Your task to perform on an android device: Go to ESPN.com Image 0: 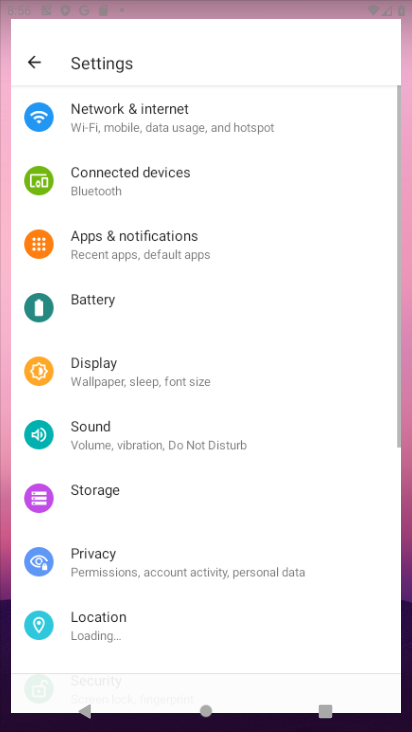
Step 0: press home button
Your task to perform on an android device: Go to ESPN.com Image 1: 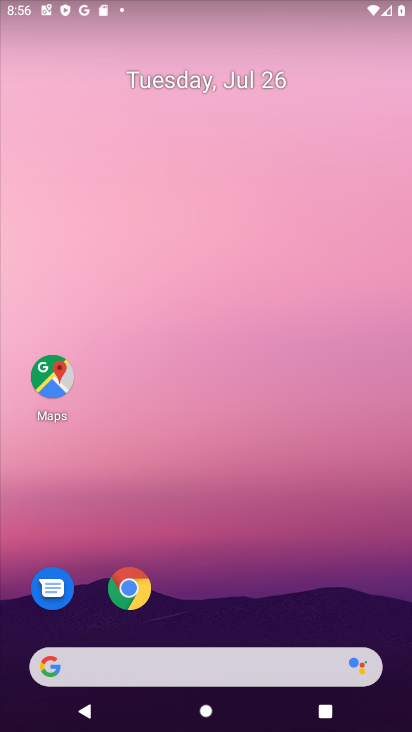
Step 1: click (129, 584)
Your task to perform on an android device: Go to ESPN.com Image 2: 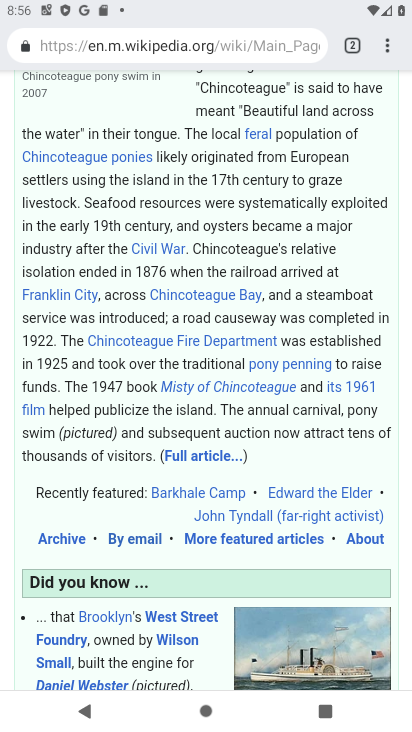
Step 2: drag from (220, 102) to (218, 495)
Your task to perform on an android device: Go to ESPN.com Image 3: 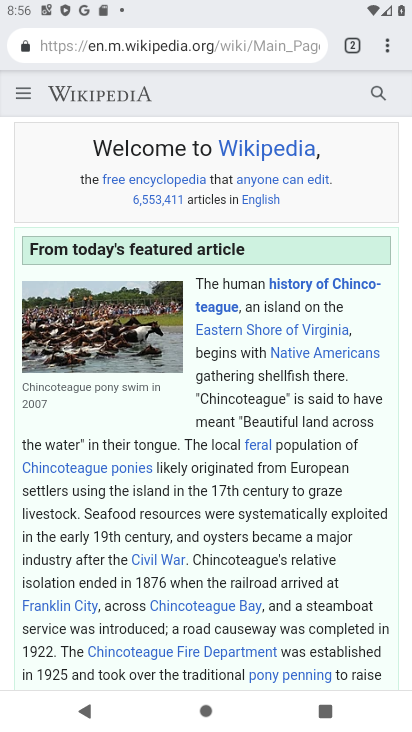
Step 3: click (356, 38)
Your task to perform on an android device: Go to ESPN.com Image 4: 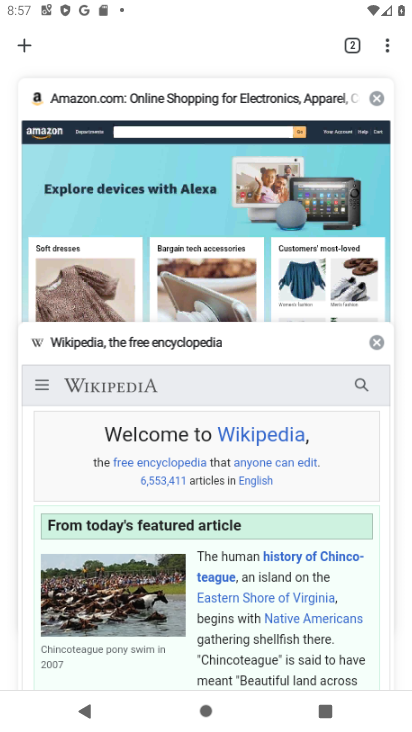
Step 4: click (18, 44)
Your task to perform on an android device: Go to ESPN.com Image 5: 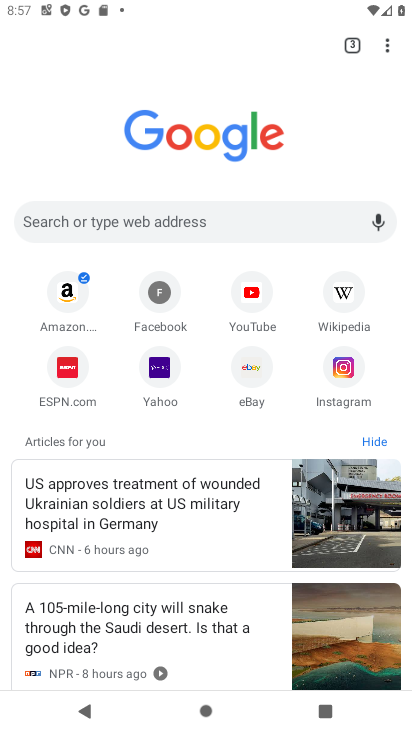
Step 5: click (66, 363)
Your task to perform on an android device: Go to ESPN.com Image 6: 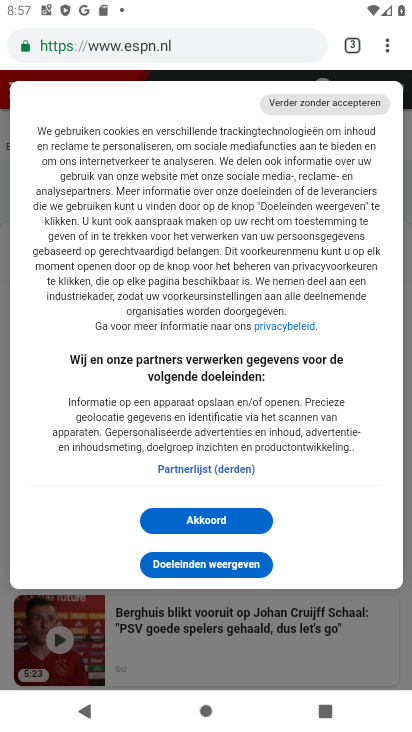
Step 6: click (205, 519)
Your task to perform on an android device: Go to ESPN.com Image 7: 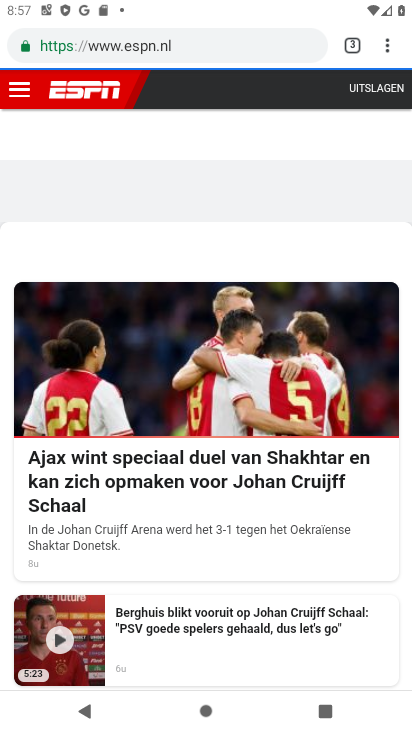
Step 7: task complete